Your task to perform on an android device: delete browsing data in the chrome app Image 0: 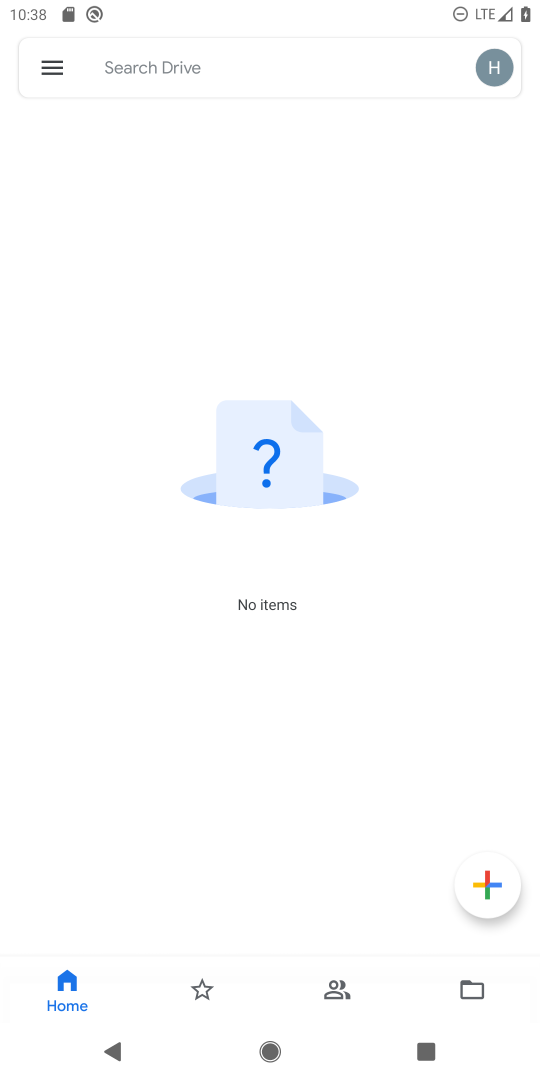
Step 0: press home button
Your task to perform on an android device: delete browsing data in the chrome app Image 1: 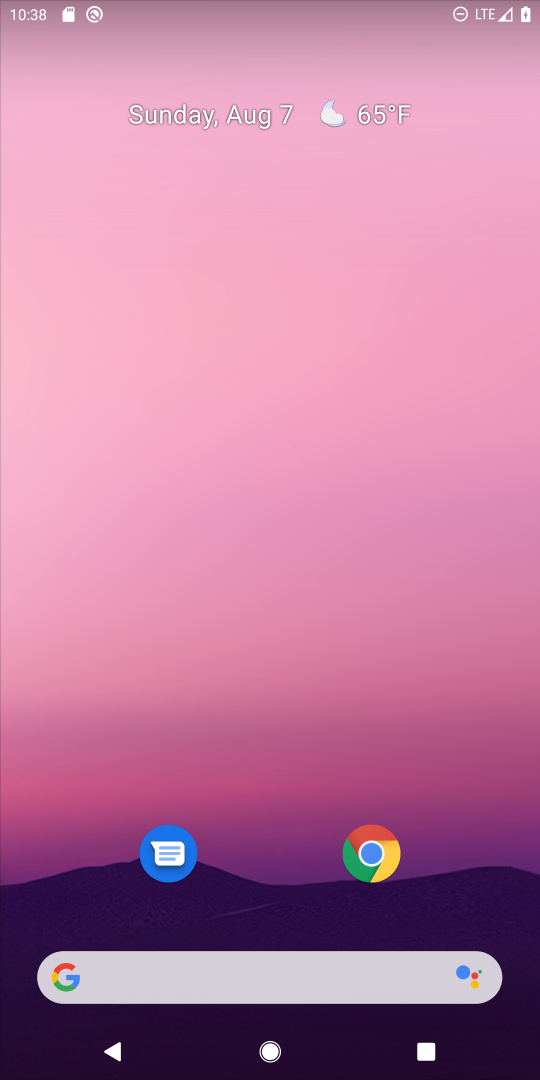
Step 1: drag from (302, 876) to (359, 320)
Your task to perform on an android device: delete browsing data in the chrome app Image 2: 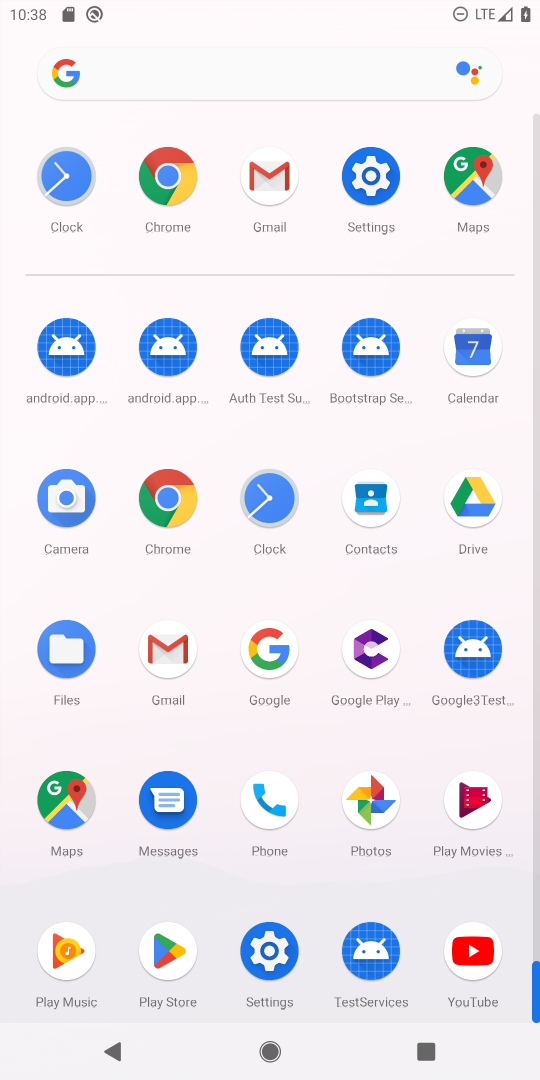
Step 2: click (155, 484)
Your task to perform on an android device: delete browsing data in the chrome app Image 3: 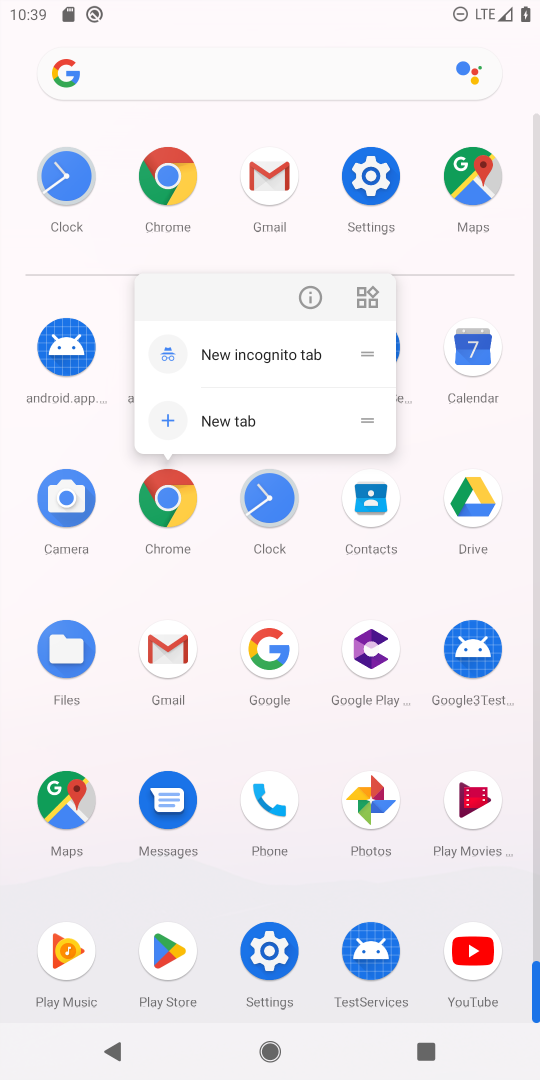
Step 3: click (172, 173)
Your task to perform on an android device: delete browsing data in the chrome app Image 4: 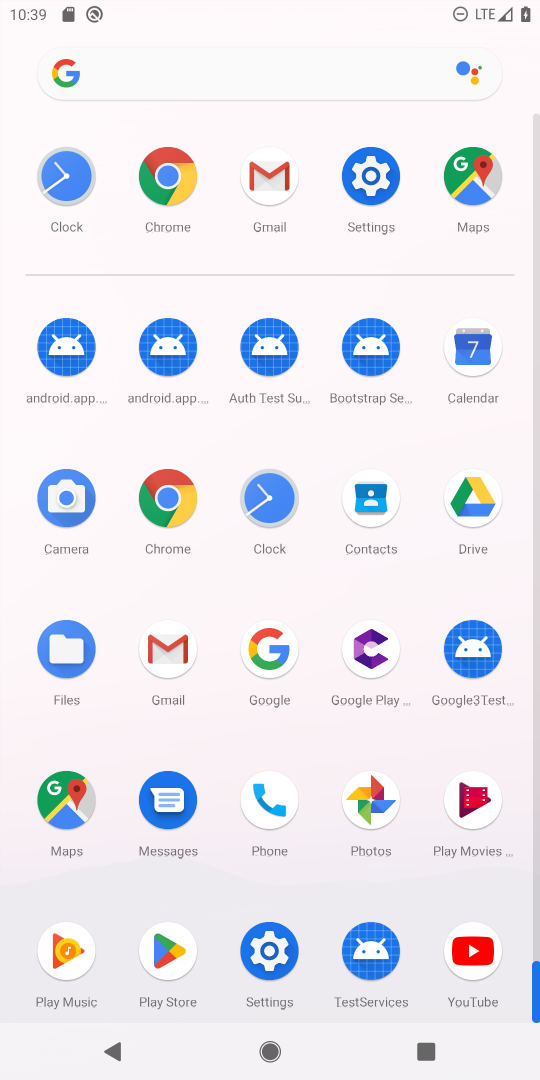
Step 4: click (177, 502)
Your task to perform on an android device: delete browsing data in the chrome app Image 5: 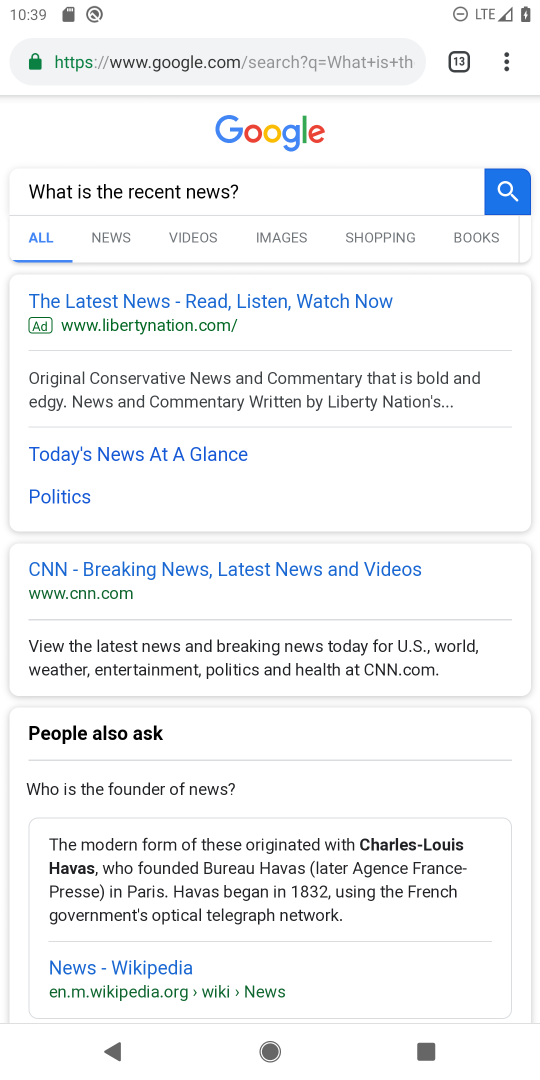
Step 5: click (510, 59)
Your task to perform on an android device: delete browsing data in the chrome app Image 6: 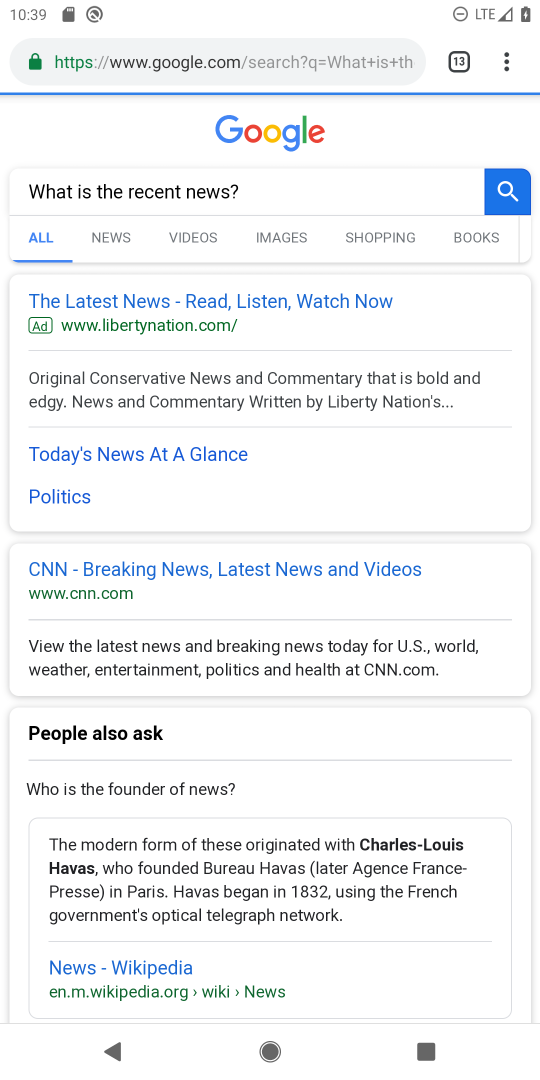
Step 6: click (510, 59)
Your task to perform on an android device: delete browsing data in the chrome app Image 7: 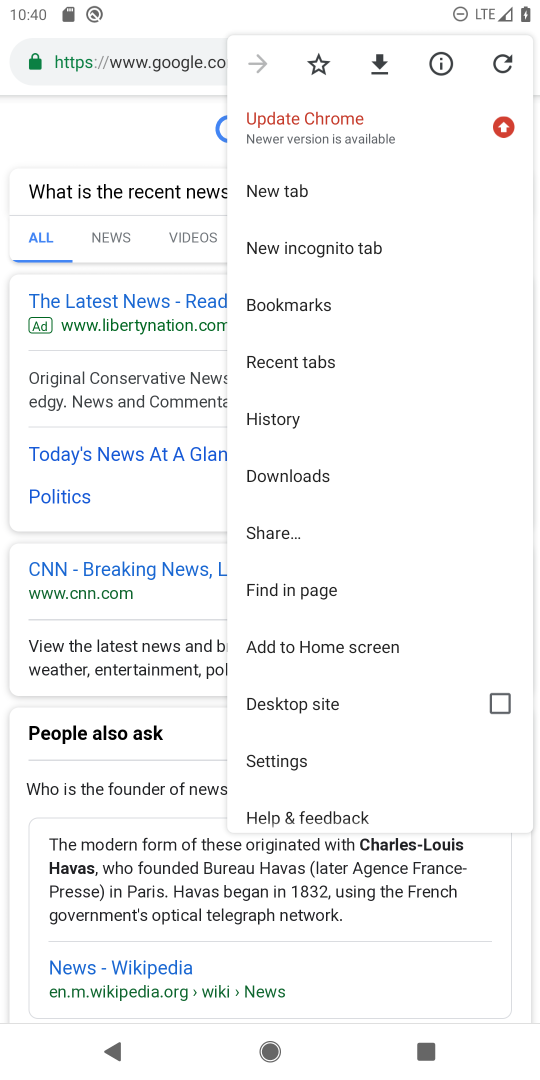
Step 7: click (321, 297)
Your task to perform on an android device: delete browsing data in the chrome app Image 8: 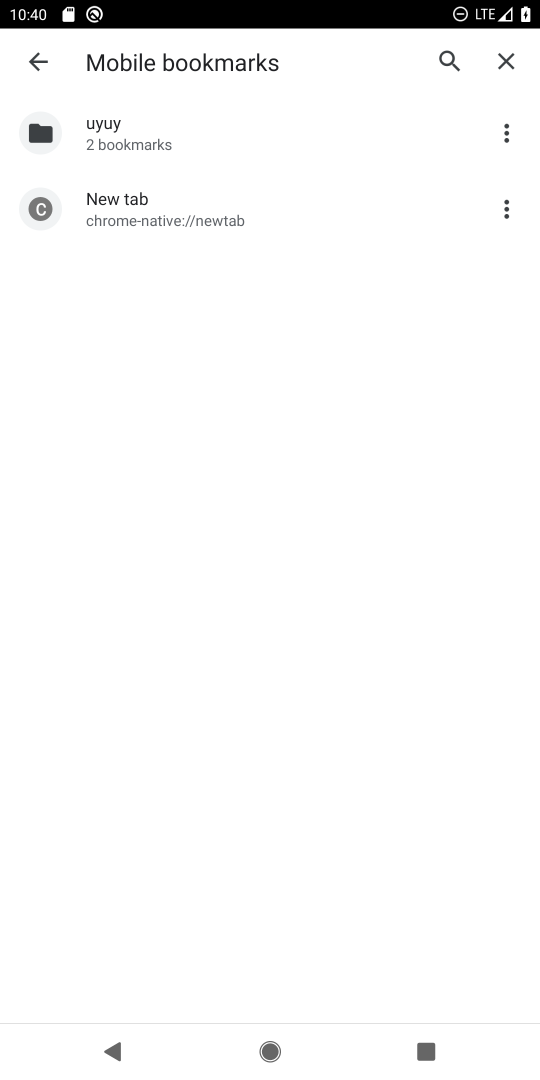
Step 8: click (26, 32)
Your task to perform on an android device: delete browsing data in the chrome app Image 9: 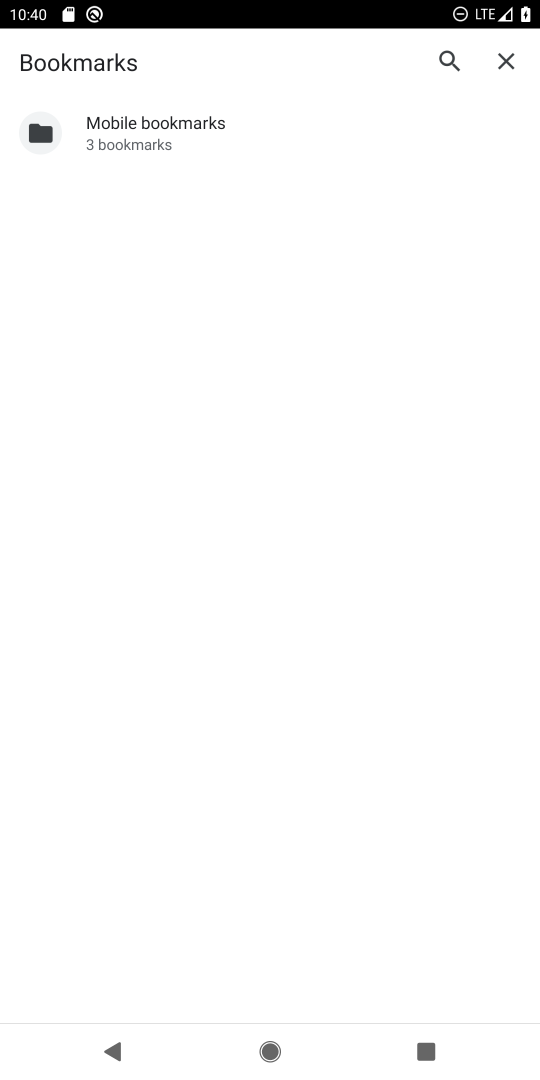
Step 9: click (499, 57)
Your task to perform on an android device: delete browsing data in the chrome app Image 10: 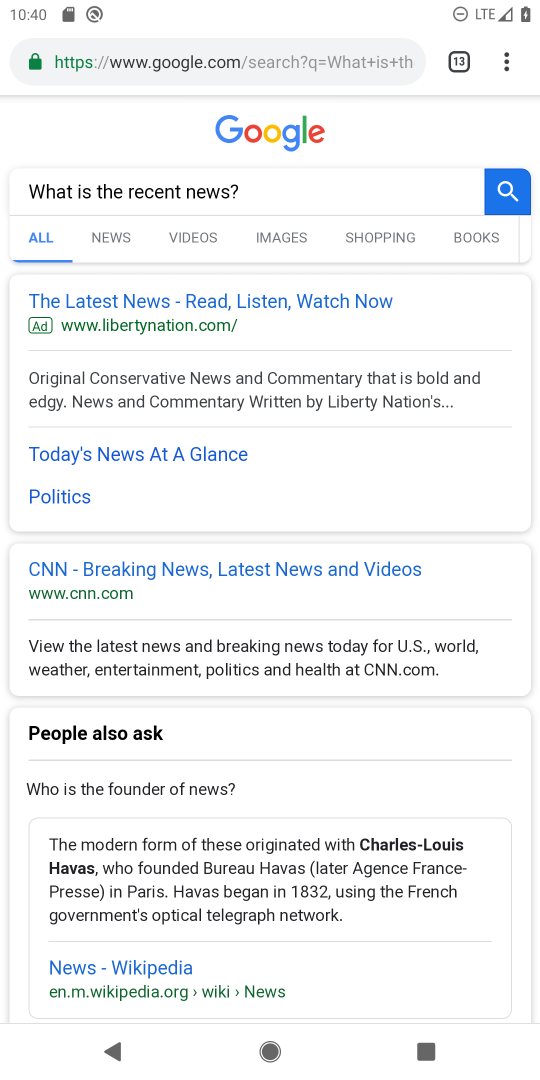
Step 10: click (499, 57)
Your task to perform on an android device: delete browsing data in the chrome app Image 11: 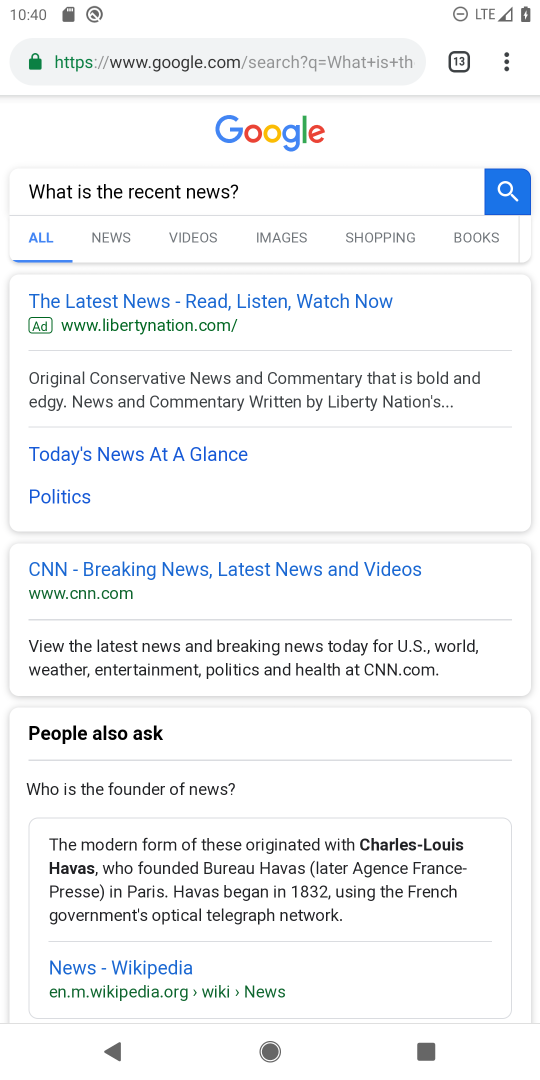
Step 11: click (499, 57)
Your task to perform on an android device: delete browsing data in the chrome app Image 12: 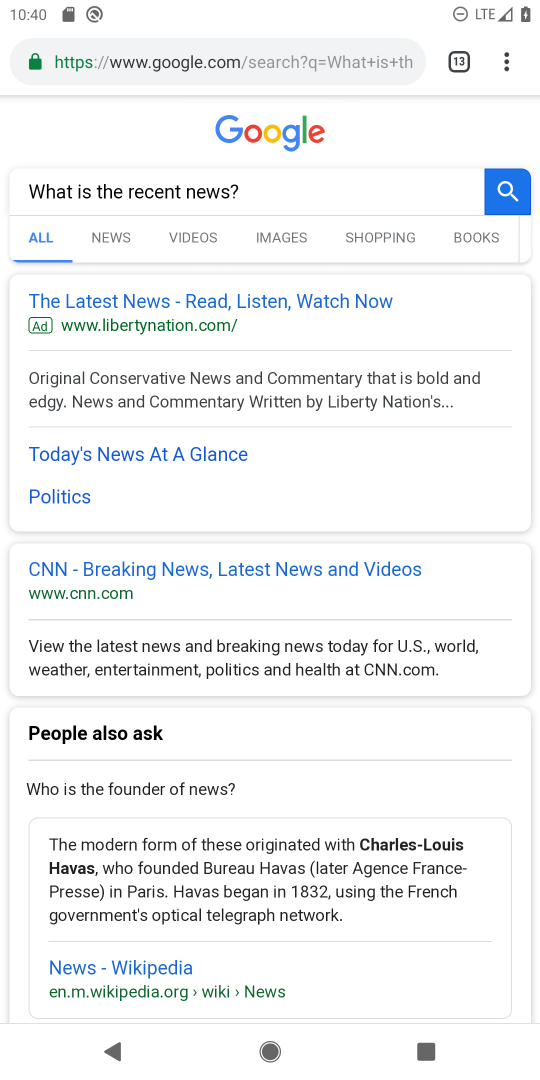
Step 12: click (512, 53)
Your task to perform on an android device: delete browsing data in the chrome app Image 13: 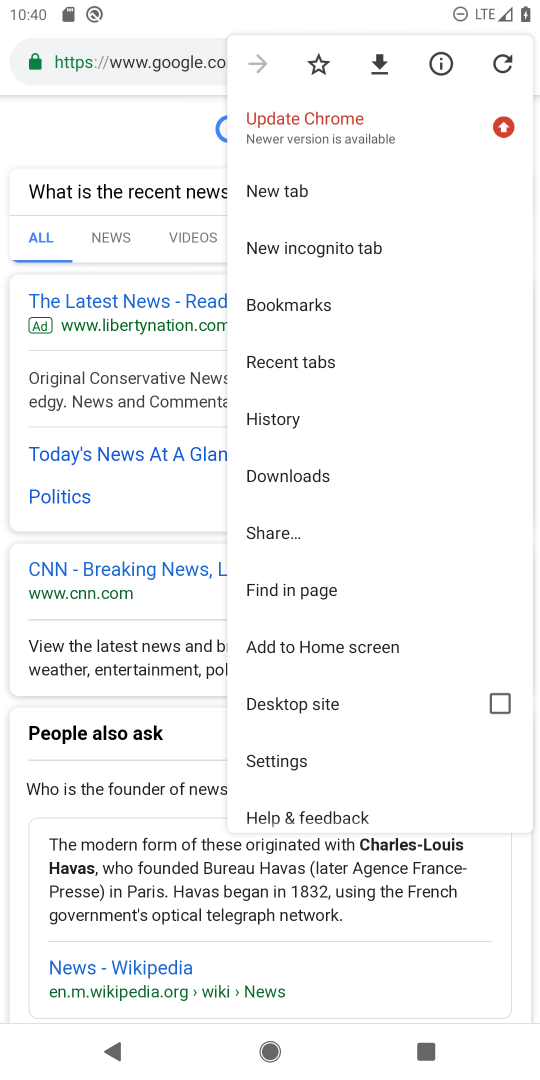
Step 13: click (277, 423)
Your task to perform on an android device: delete browsing data in the chrome app Image 14: 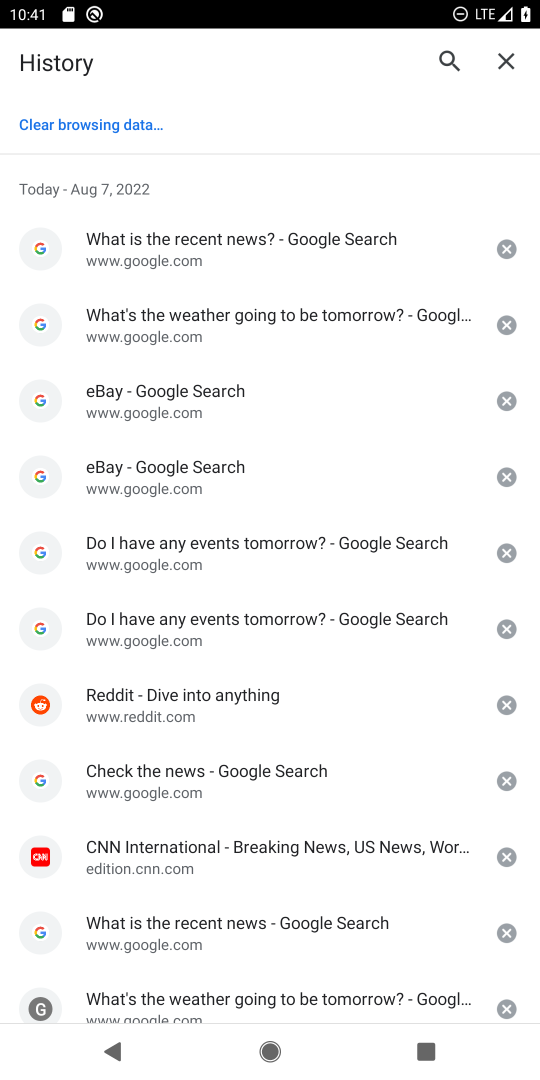
Step 14: click (115, 125)
Your task to perform on an android device: delete browsing data in the chrome app Image 15: 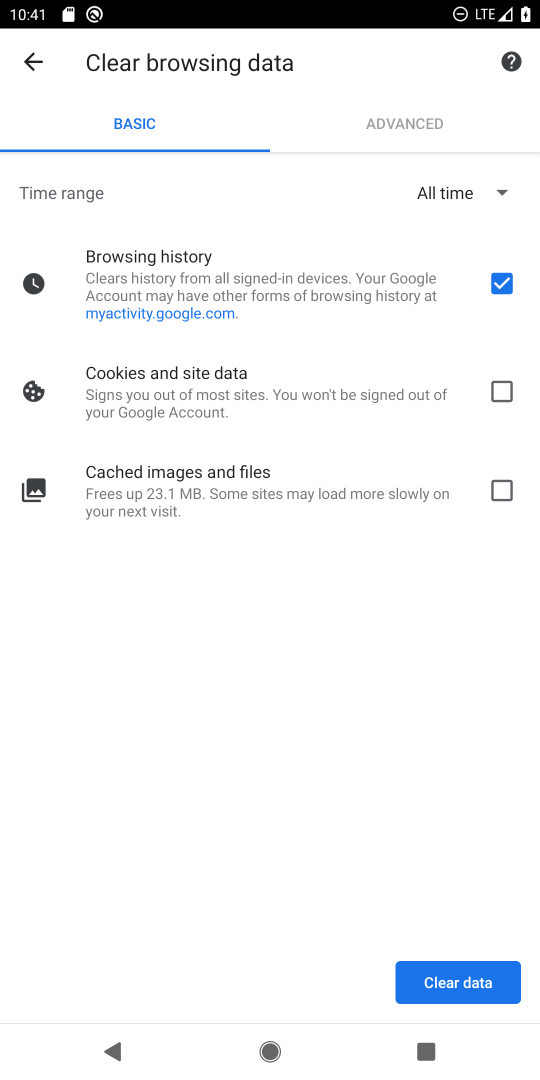
Step 15: click (435, 975)
Your task to perform on an android device: delete browsing data in the chrome app Image 16: 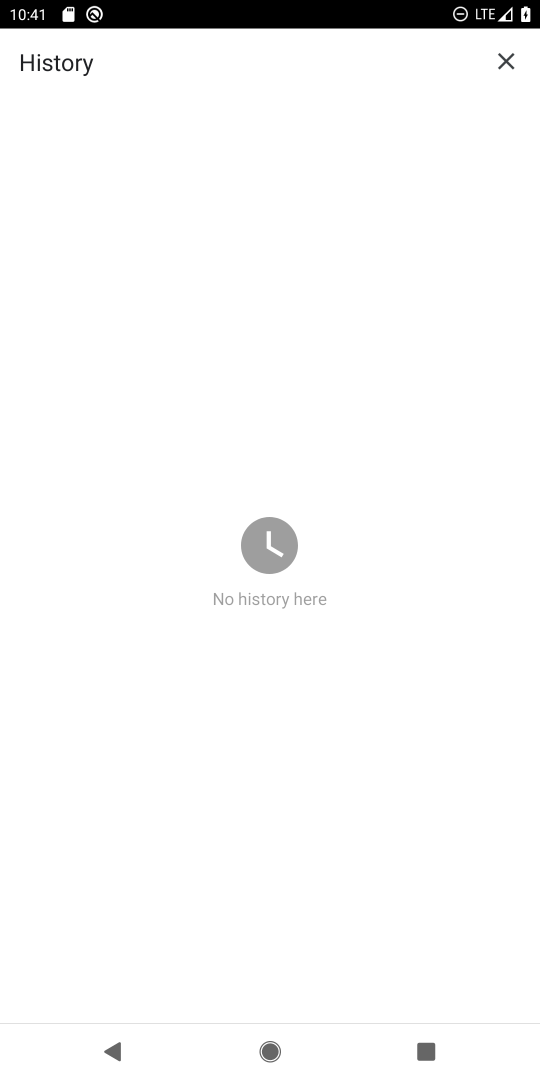
Step 16: task complete